Your task to perform on an android device: Add "razer blackwidow" to the cart on costco.com, then select checkout. Image 0: 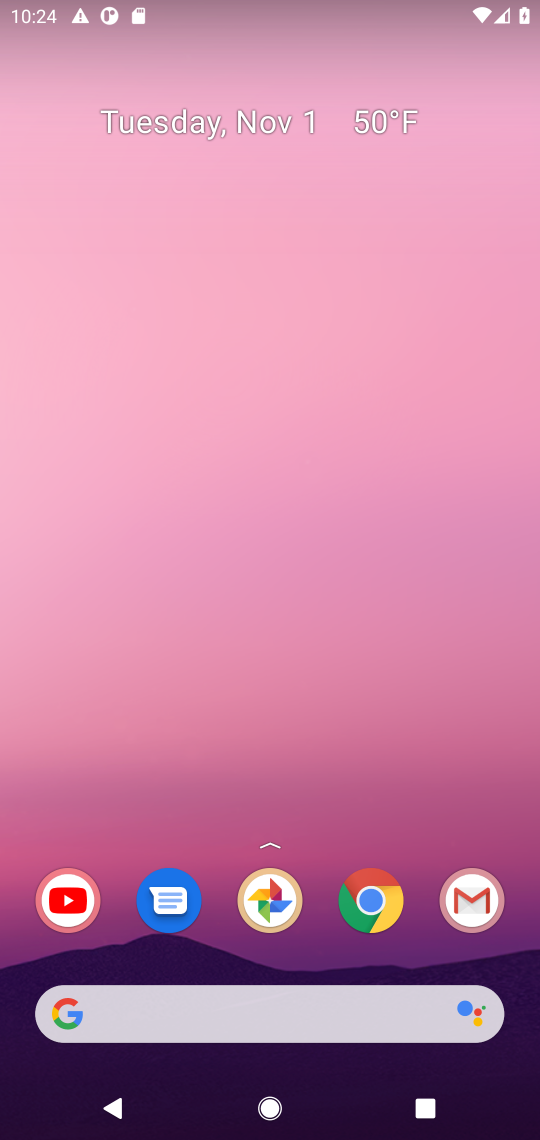
Step 0: click (374, 878)
Your task to perform on an android device: Add "razer blackwidow" to the cart on costco.com, then select checkout. Image 1: 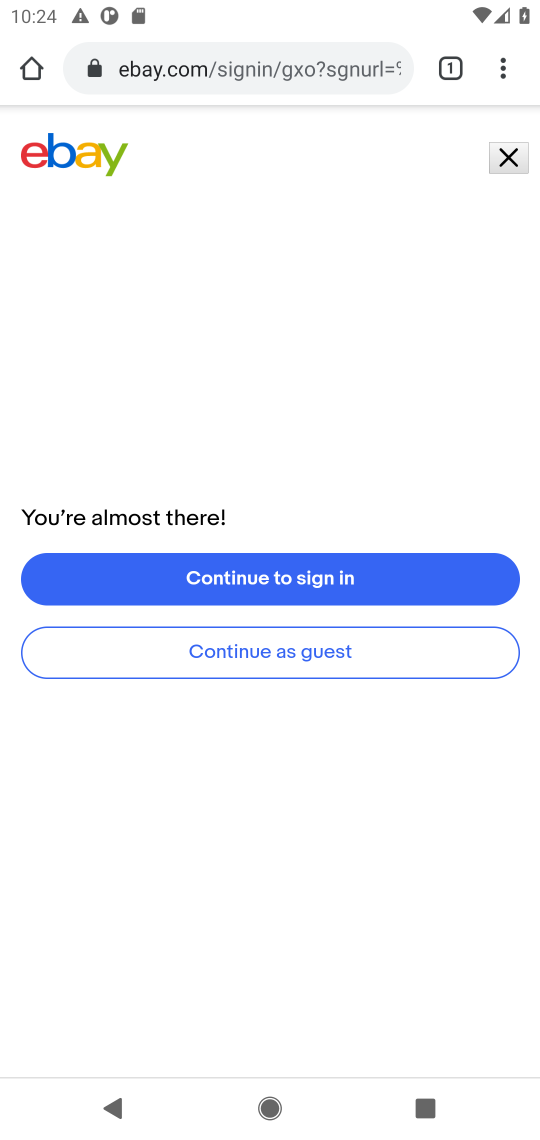
Step 1: click (235, 42)
Your task to perform on an android device: Add "razer blackwidow" to the cart on costco.com, then select checkout. Image 2: 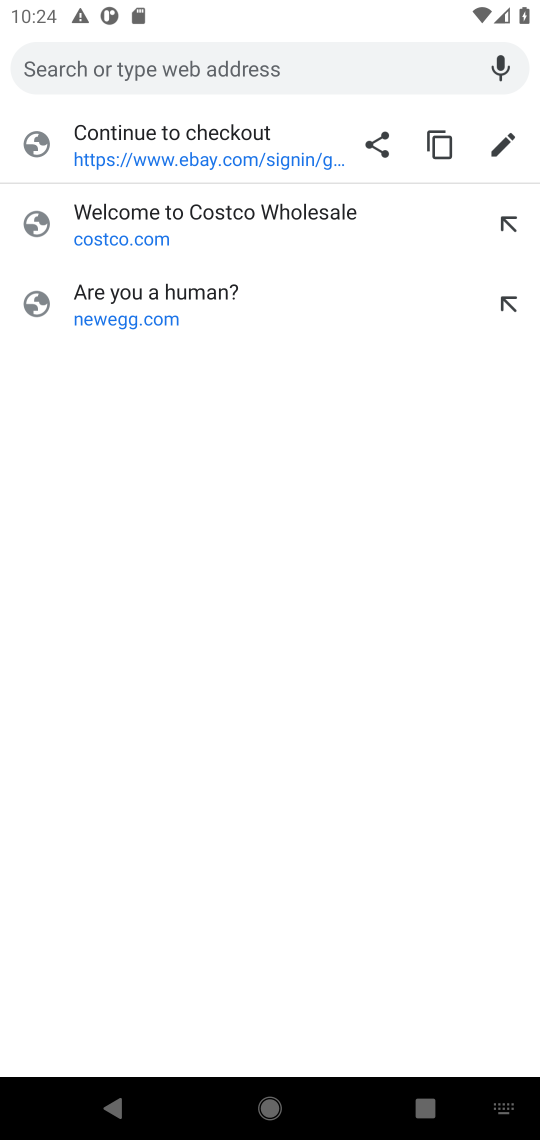
Step 2: click (253, 234)
Your task to perform on an android device: Add "razer blackwidow" to the cart on costco.com, then select checkout. Image 3: 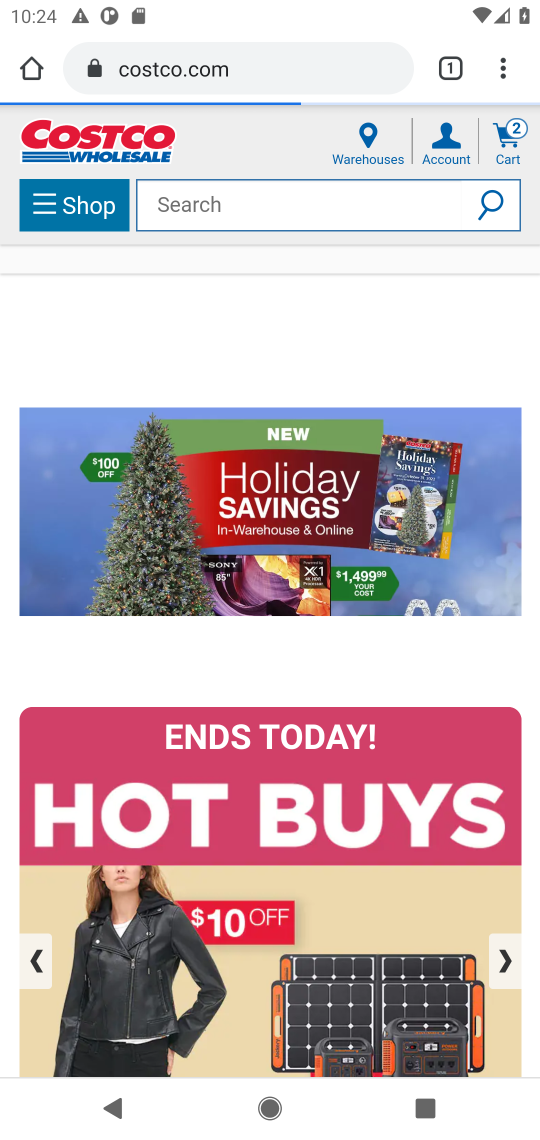
Step 3: click (208, 210)
Your task to perform on an android device: Add "razer blackwidow" to the cart on costco.com, then select checkout. Image 4: 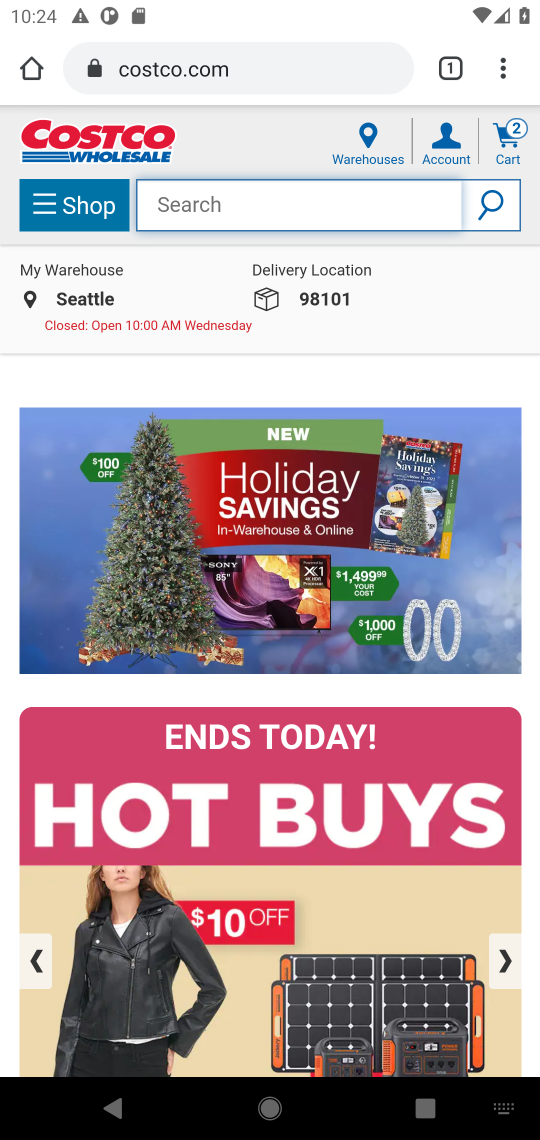
Step 4: type "razer blackwidow"
Your task to perform on an android device: Add "razer blackwidow" to the cart on costco.com, then select checkout. Image 5: 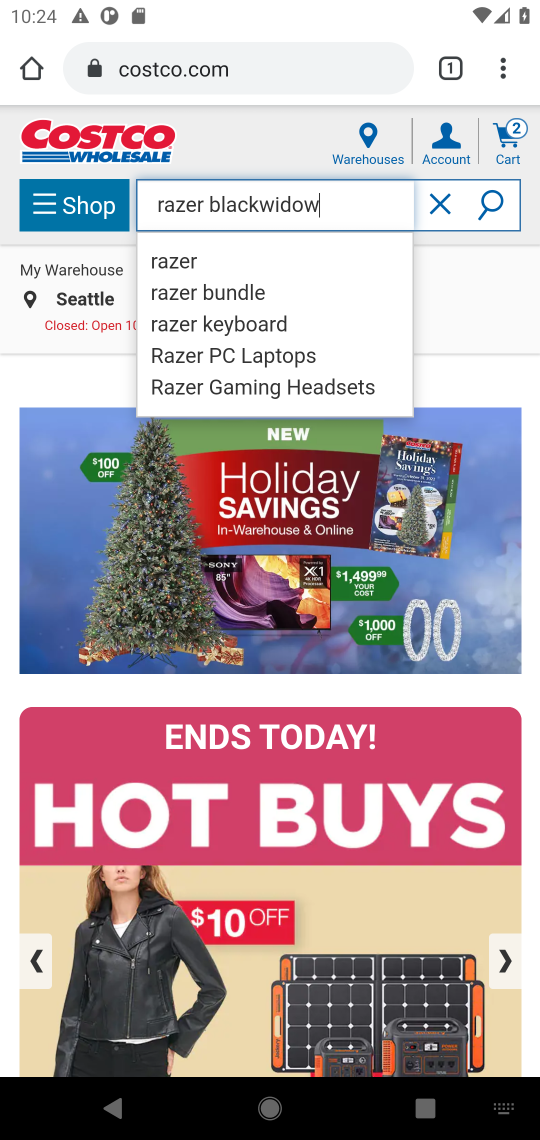
Step 5: click (502, 211)
Your task to perform on an android device: Add "razer blackwidow" to the cart on costco.com, then select checkout. Image 6: 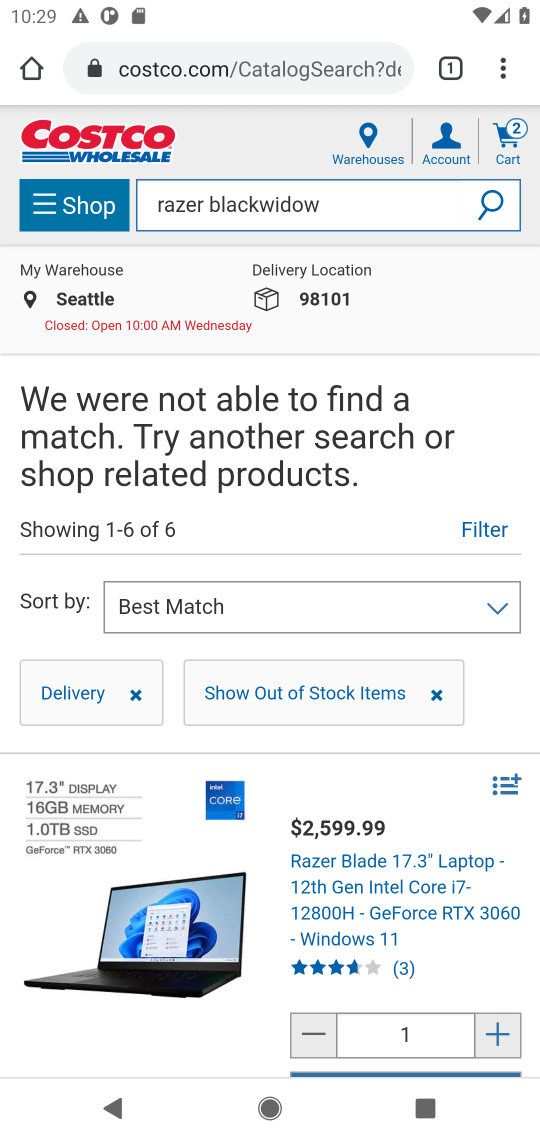
Step 6: task complete